Your task to perform on an android device: open app "Lyft - Rideshare, Bikes, Scooters & Transit" Image 0: 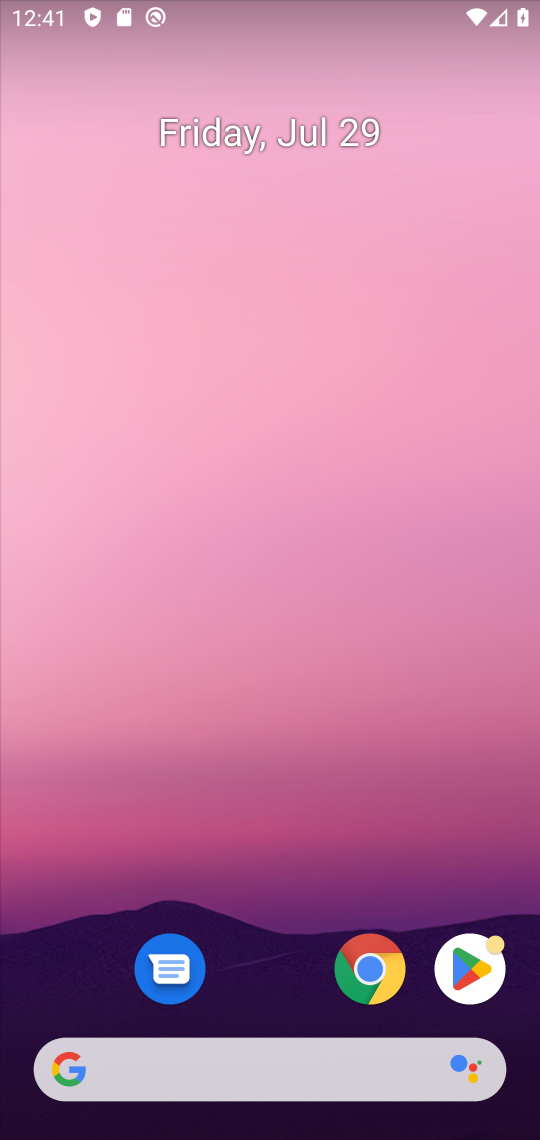
Step 0: click (472, 964)
Your task to perform on an android device: open app "Lyft - Rideshare, Bikes, Scooters & Transit" Image 1: 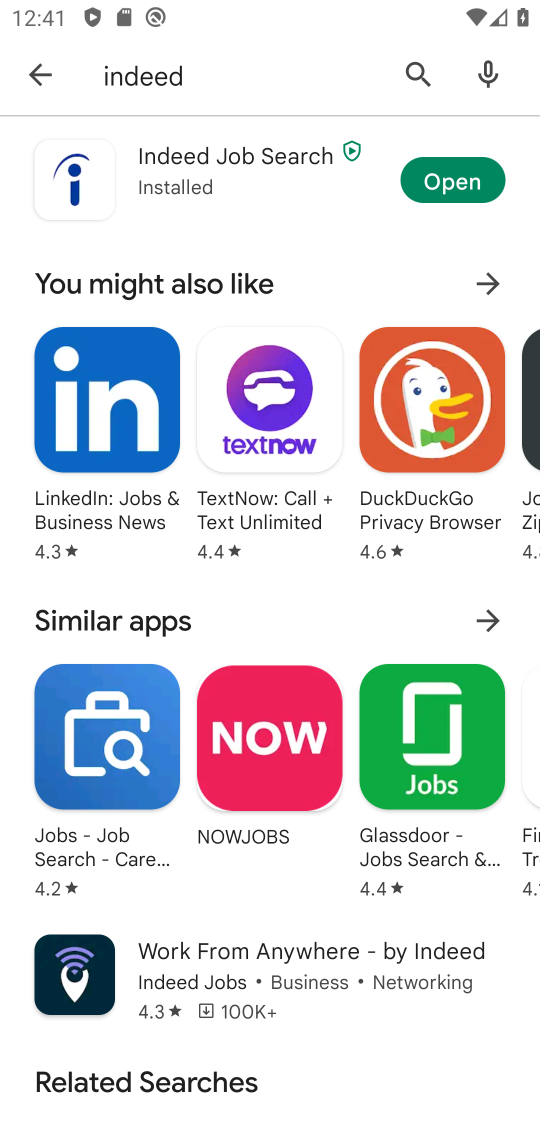
Step 1: click (413, 81)
Your task to perform on an android device: open app "Lyft - Rideshare, Bikes, Scooters & Transit" Image 2: 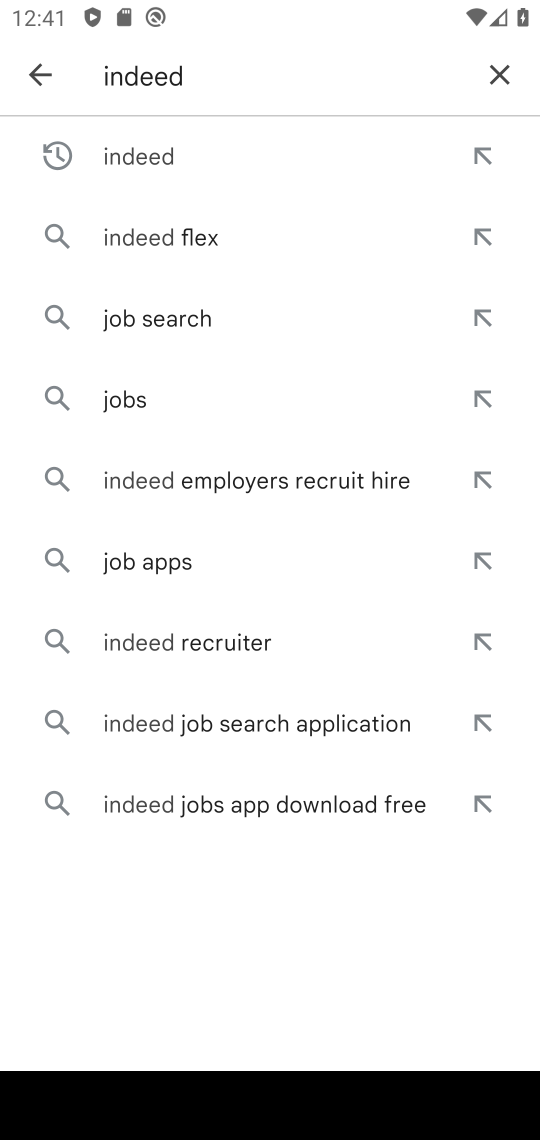
Step 2: click (498, 74)
Your task to perform on an android device: open app "Lyft - Rideshare, Bikes, Scooters & Transit" Image 3: 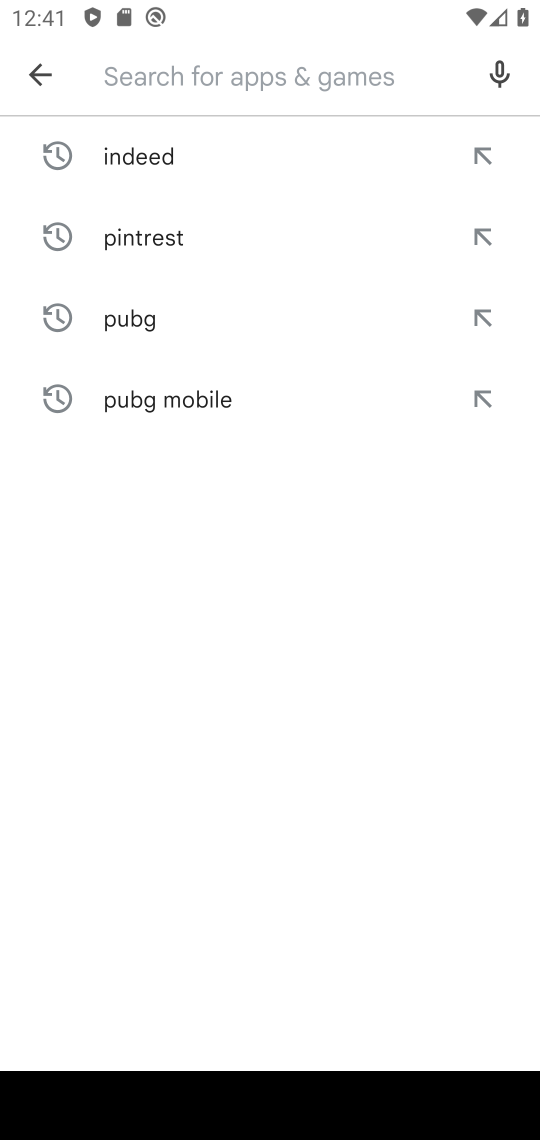
Step 3: type "lyft"
Your task to perform on an android device: open app "Lyft - Rideshare, Bikes, Scooters & Transit" Image 4: 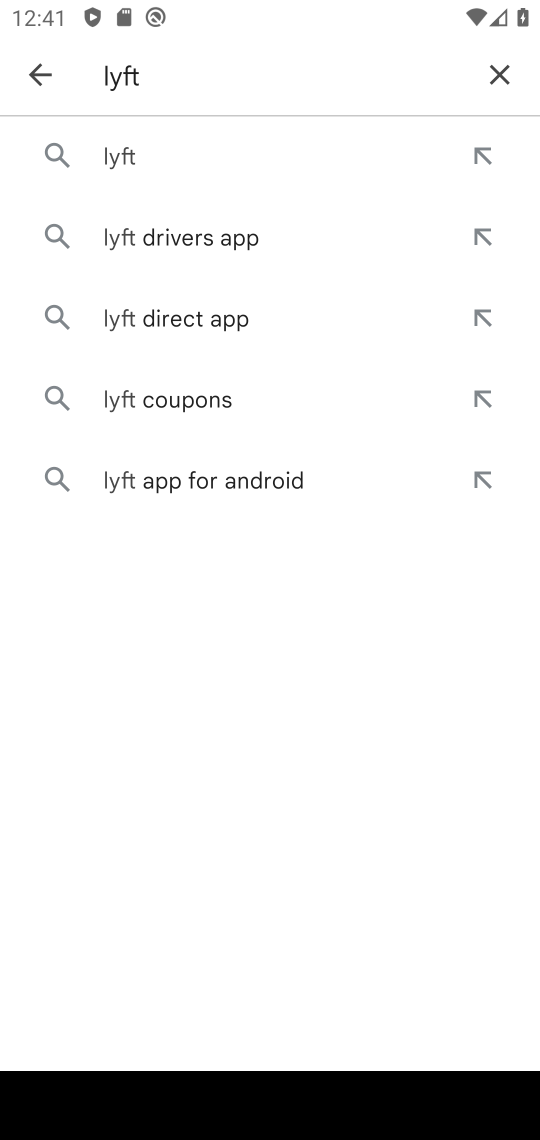
Step 4: click (178, 161)
Your task to perform on an android device: open app "Lyft - Rideshare, Bikes, Scooters & Transit" Image 5: 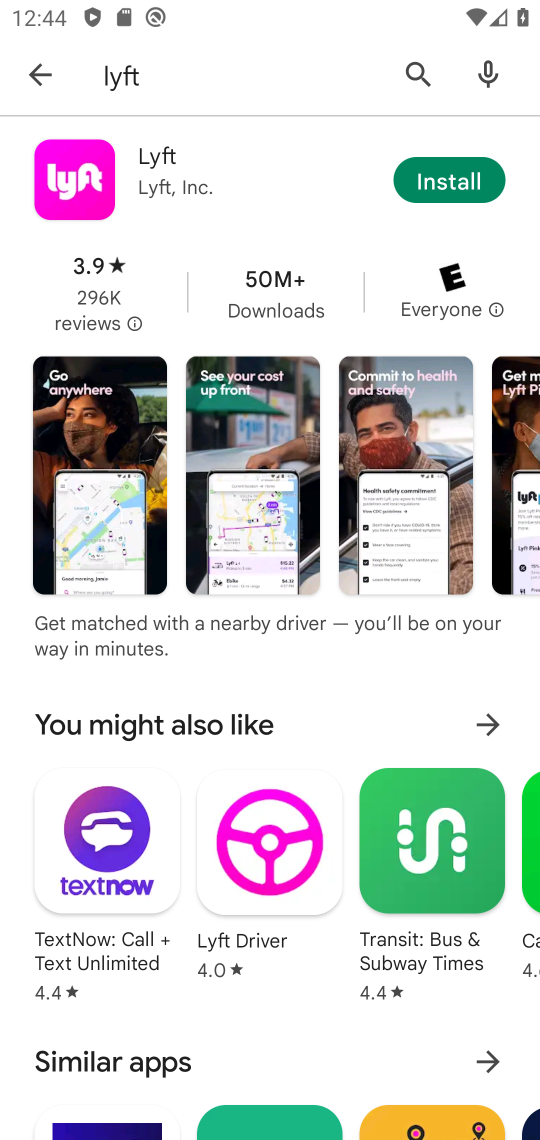
Step 5: task complete